Your task to perform on an android device: Open settings on Google Maps Image 0: 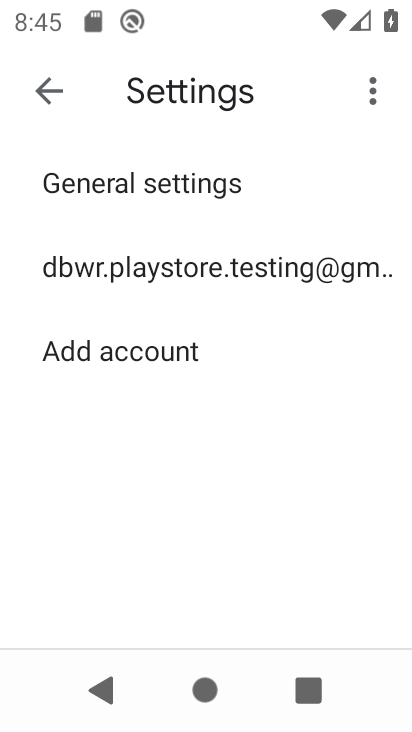
Step 0: press home button
Your task to perform on an android device: Open settings on Google Maps Image 1: 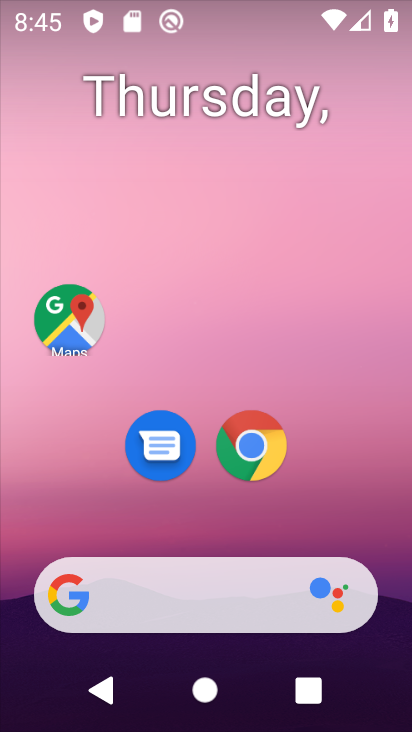
Step 1: click (69, 321)
Your task to perform on an android device: Open settings on Google Maps Image 2: 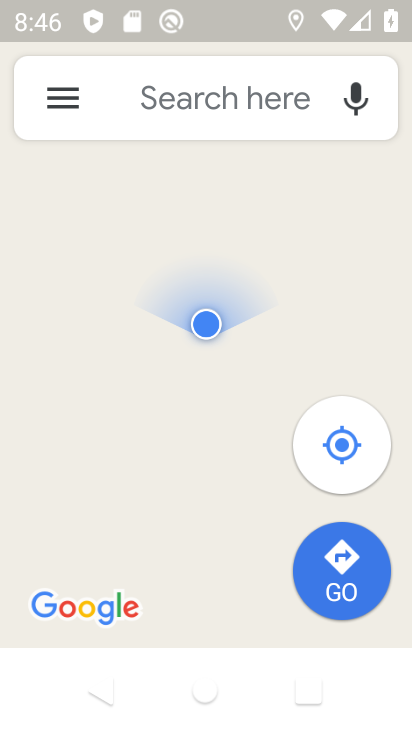
Step 2: click (61, 112)
Your task to perform on an android device: Open settings on Google Maps Image 3: 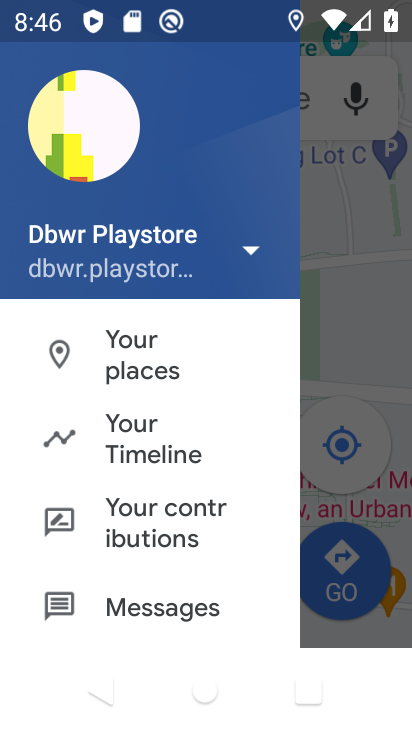
Step 3: drag from (253, 587) to (246, 294)
Your task to perform on an android device: Open settings on Google Maps Image 4: 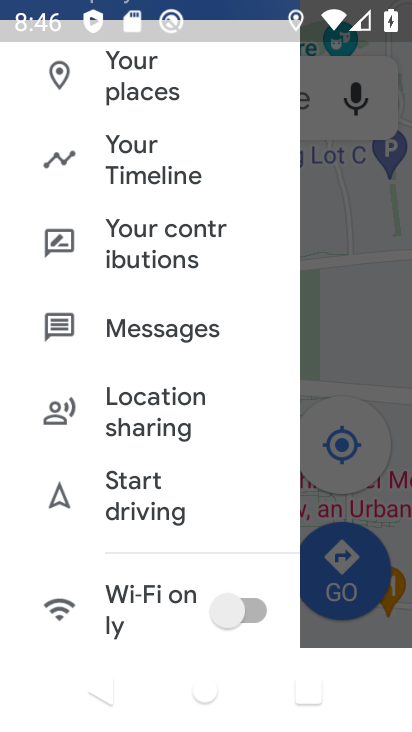
Step 4: drag from (207, 511) to (225, 232)
Your task to perform on an android device: Open settings on Google Maps Image 5: 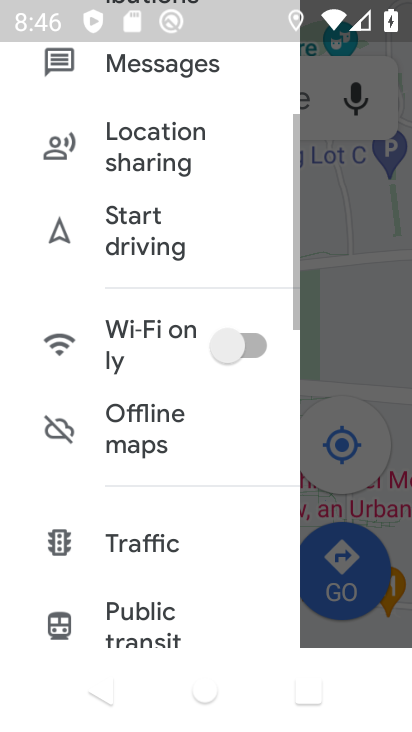
Step 5: drag from (204, 467) to (222, 127)
Your task to perform on an android device: Open settings on Google Maps Image 6: 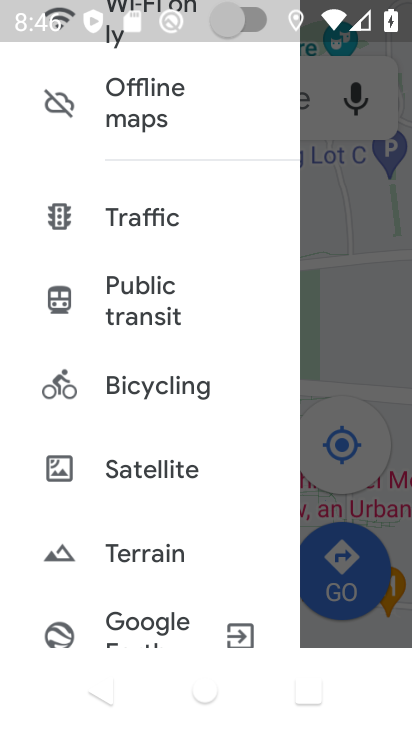
Step 6: drag from (214, 493) to (230, 290)
Your task to perform on an android device: Open settings on Google Maps Image 7: 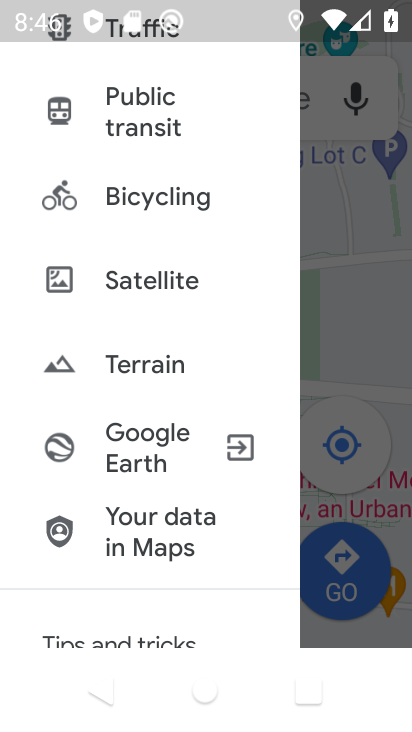
Step 7: drag from (166, 520) to (163, 98)
Your task to perform on an android device: Open settings on Google Maps Image 8: 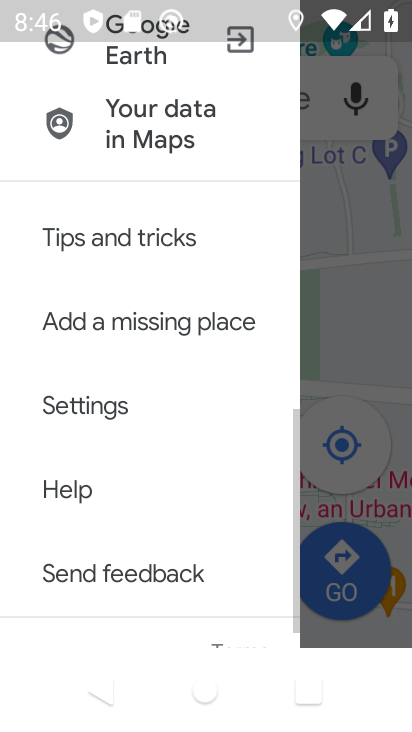
Step 8: drag from (176, 399) to (178, 107)
Your task to perform on an android device: Open settings on Google Maps Image 9: 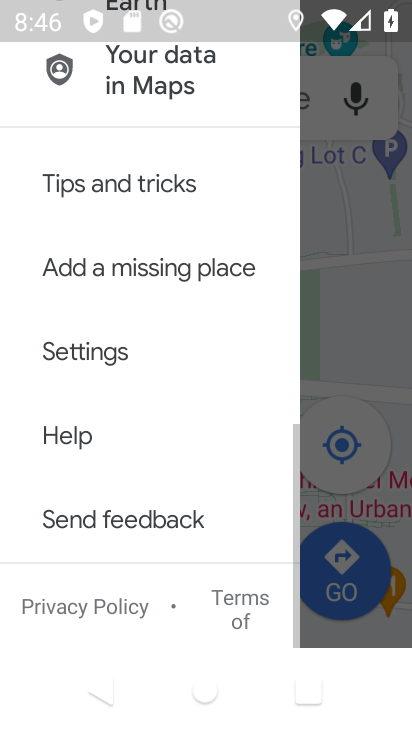
Step 9: click (98, 352)
Your task to perform on an android device: Open settings on Google Maps Image 10: 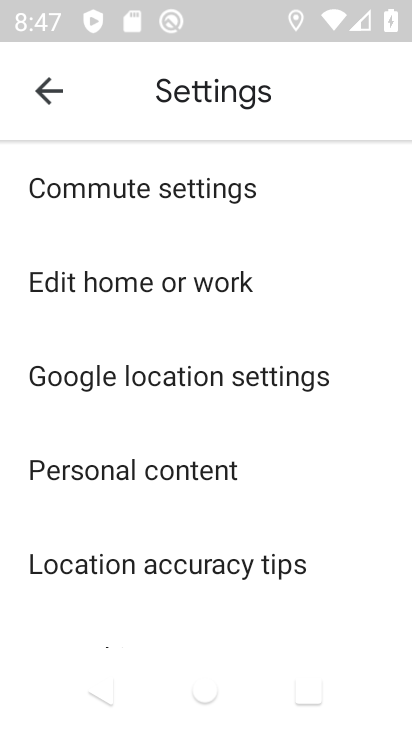
Step 10: task complete